Your task to perform on an android device: turn on improve location accuracy Image 0: 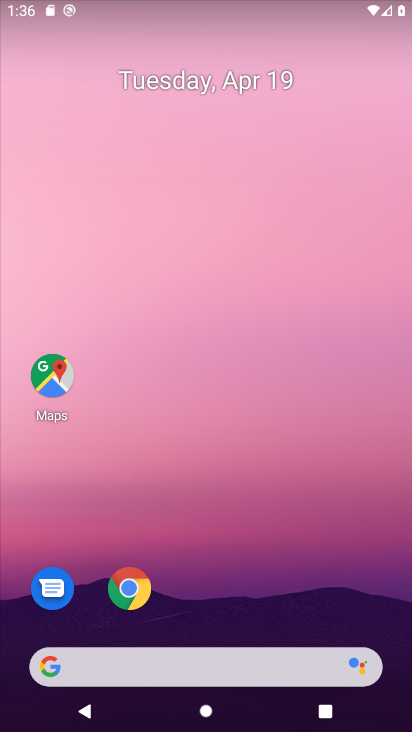
Step 0: drag from (212, 549) to (235, 124)
Your task to perform on an android device: turn on improve location accuracy Image 1: 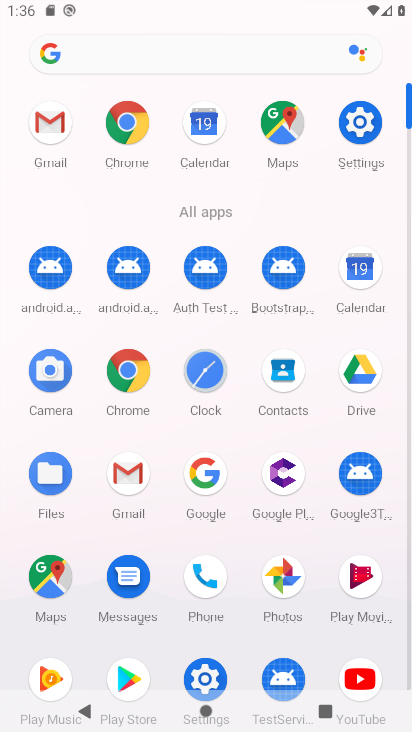
Step 1: click (209, 674)
Your task to perform on an android device: turn on improve location accuracy Image 2: 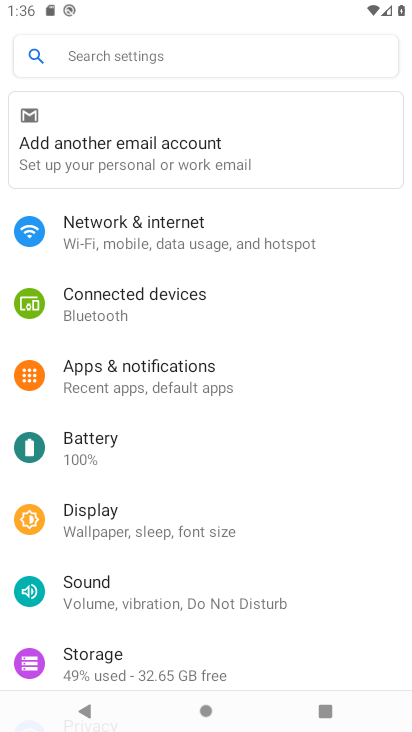
Step 2: drag from (127, 601) to (165, 193)
Your task to perform on an android device: turn on improve location accuracy Image 3: 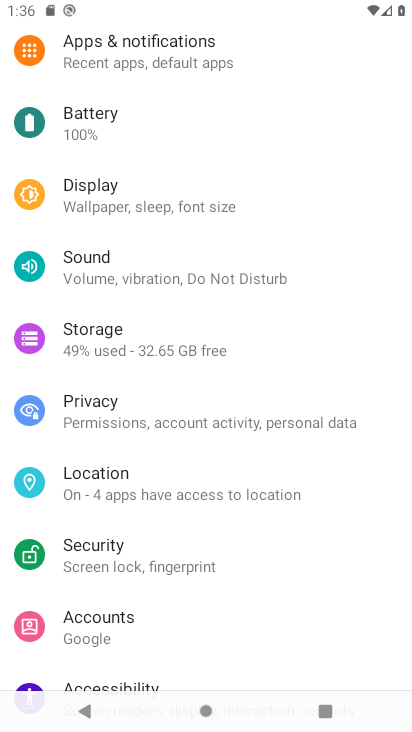
Step 3: click (146, 476)
Your task to perform on an android device: turn on improve location accuracy Image 4: 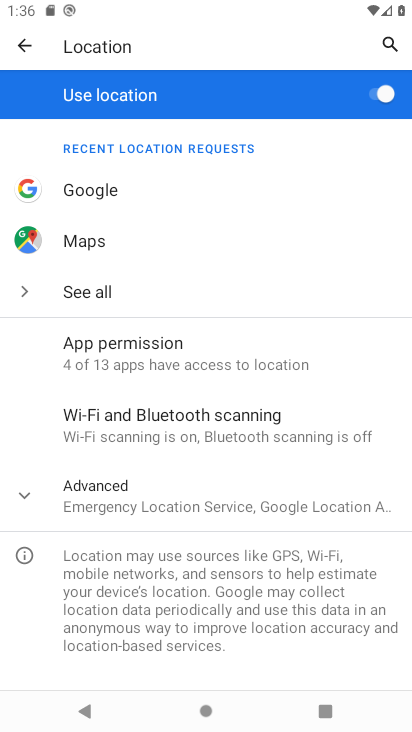
Step 4: click (129, 506)
Your task to perform on an android device: turn on improve location accuracy Image 5: 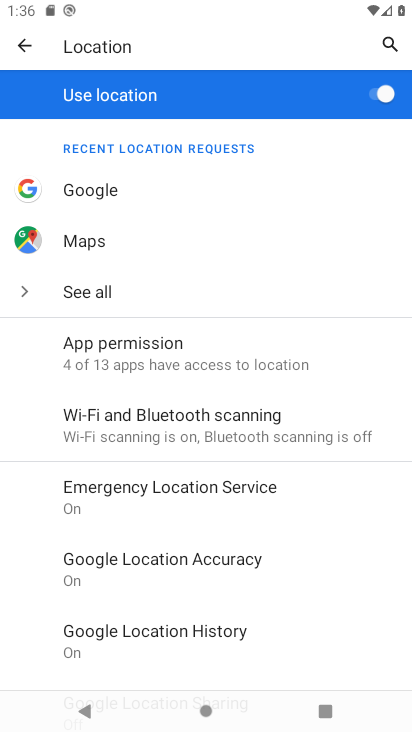
Step 5: click (139, 572)
Your task to perform on an android device: turn on improve location accuracy Image 6: 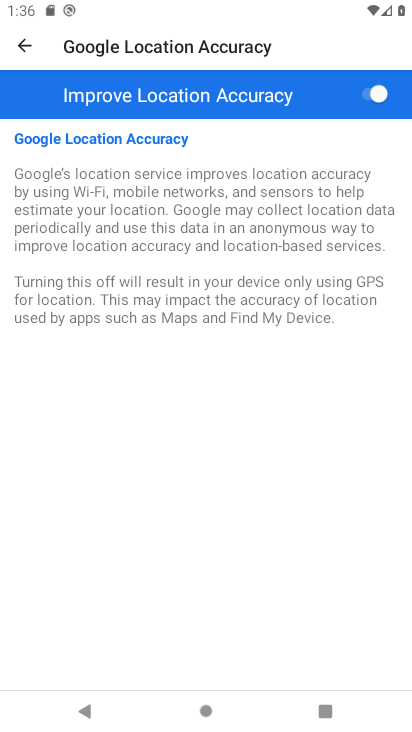
Step 6: task complete